Your task to perform on an android device: turn on location history Image 0: 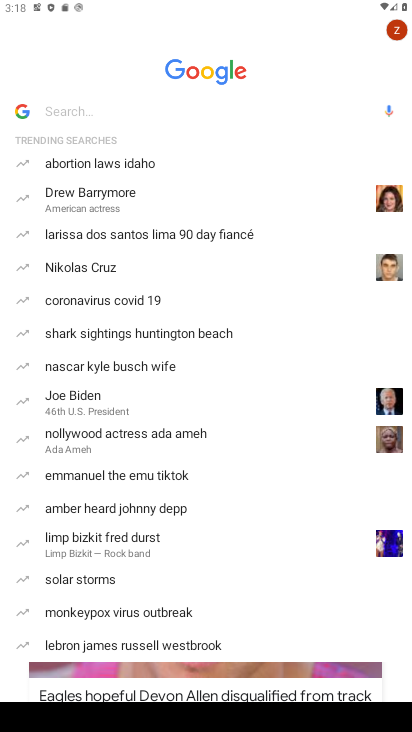
Step 0: press back button
Your task to perform on an android device: turn on location history Image 1: 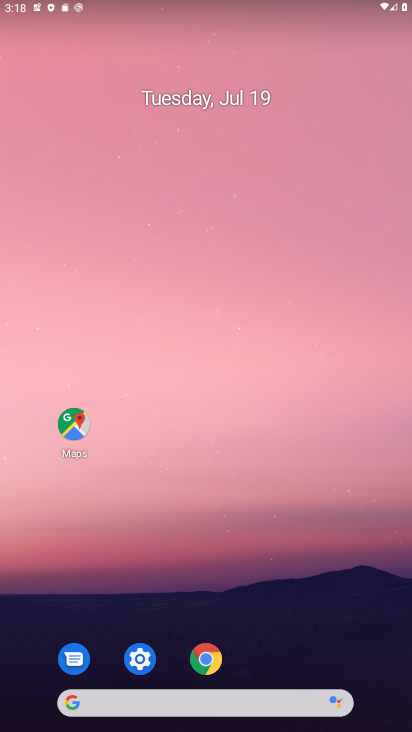
Step 1: drag from (216, 585) to (116, 148)
Your task to perform on an android device: turn on location history Image 2: 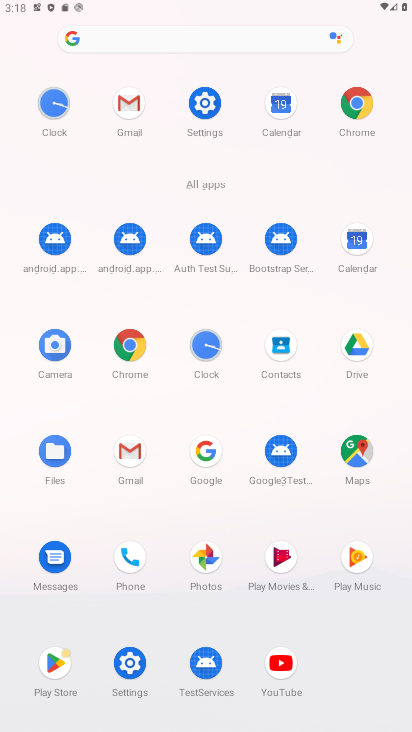
Step 2: click (206, 104)
Your task to perform on an android device: turn on location history Image 3: 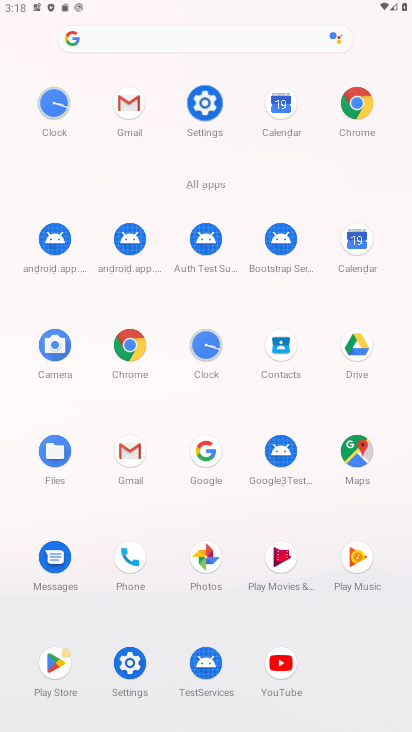
Step 3: click (212, 100)
Your task to perform on an android device: turn on location history Image 4: 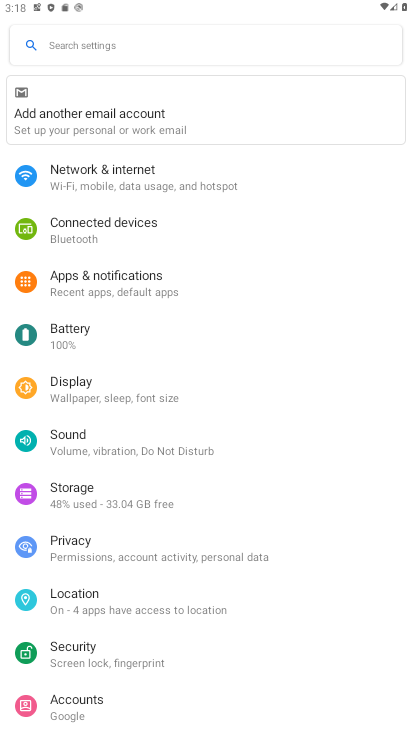
Step 4: click (67, 597)
Your task to perform on an android device: turn on location history Image 5: 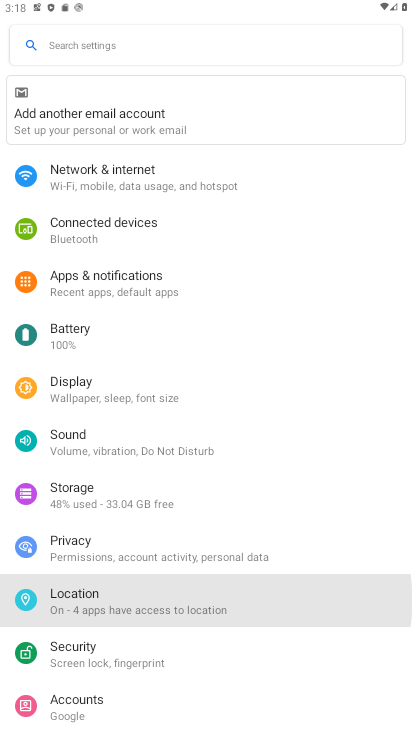
Step 5: click (67, 597)
Your task to perform on an android device: turn on location history Image 6: 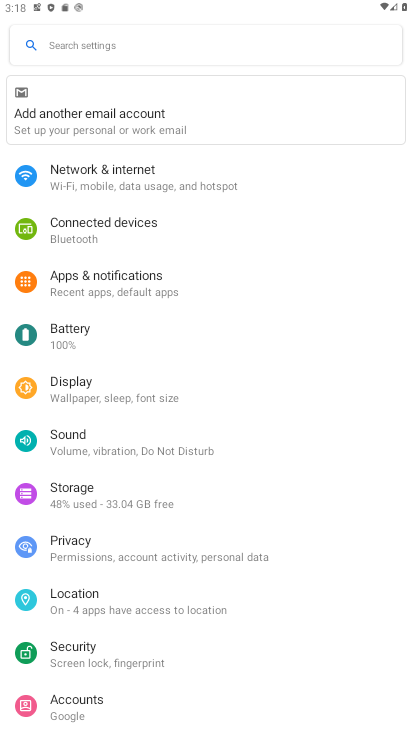
Step 6: click (68, 595)
Your task to perform on an android device: turn on location history Image 7: 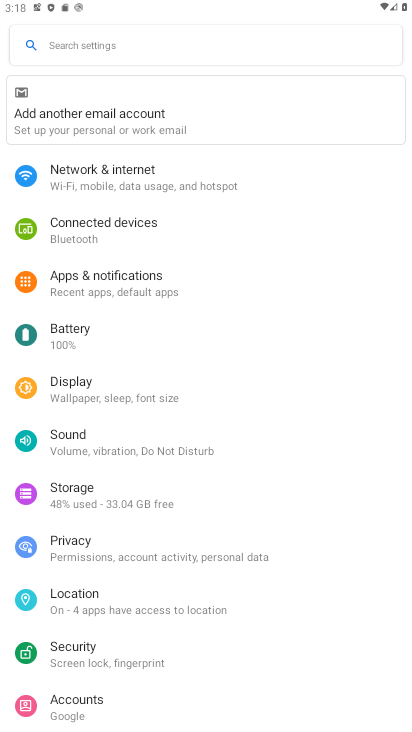
Step 7: click (69, 595)
Your task to perform on an android device: turn on location history Image 8: 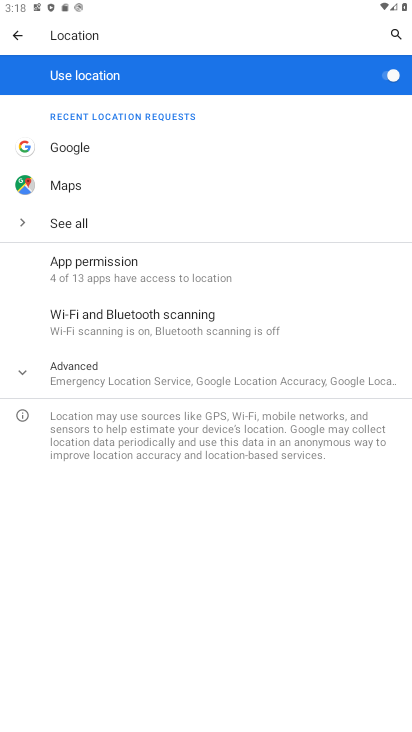
Step 8: click (72, 382)
Your task to perform on an android device: turn on location history Image 9: 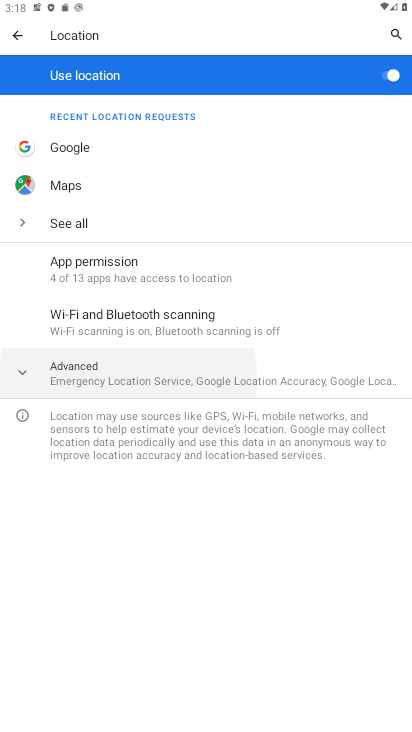
Step 9: click (72, 382)
Your task to perform on an android device: turn on location history Image 10: 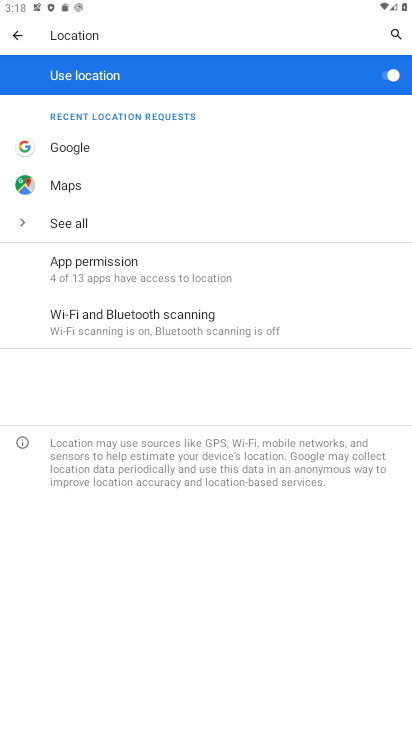
Step 10: click (72, 382)
Your task to perform on an android device: turn on location history Image 11: 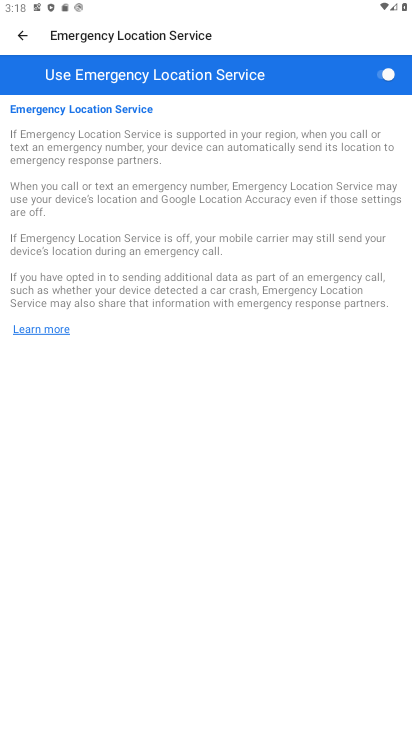
Step 11: click (33, 37)
Your task to perform on an android device: turn on location history Image 12: 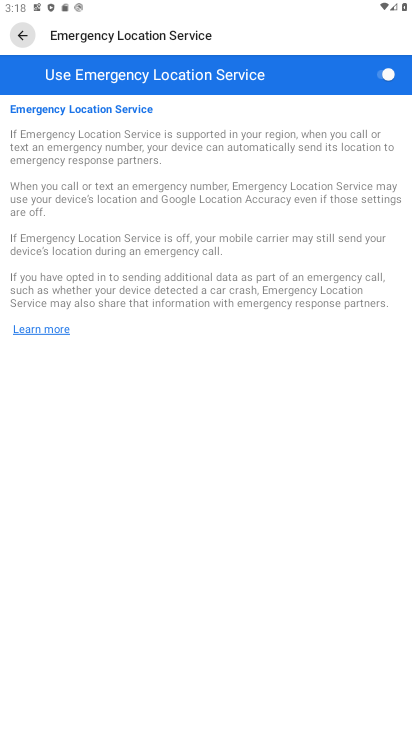
Step 12: click (32, 37)
Your task to perform on an android device: turn on location history Image 13: 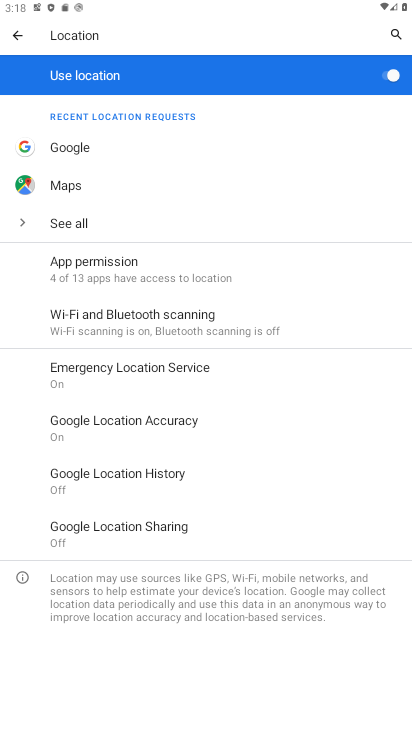
Step 13: click (130, 419)
Your task to perform on an android device: turn on location history Image 14: 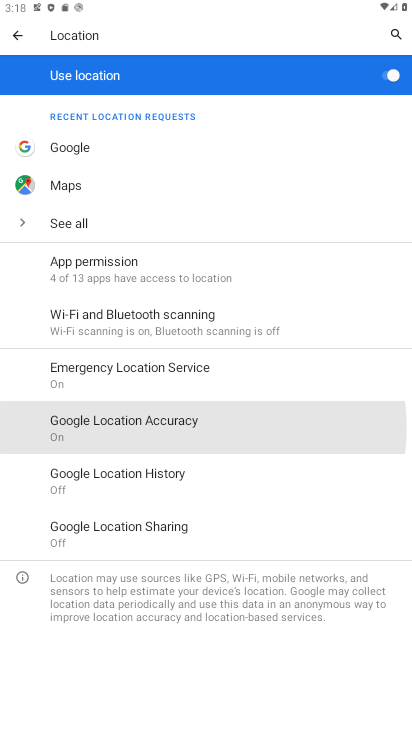
Step 14: click (116, 419)
Your task to perform on an android device: turn on location history Image 15: 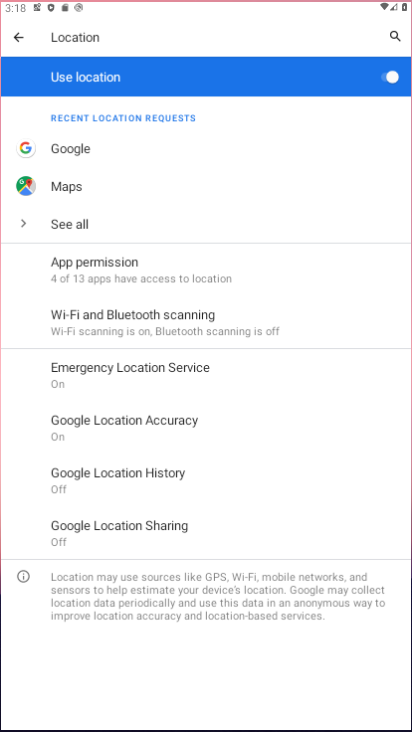
Step 15: click (124, 414)
Your task to perform on an android device: turn on location history Image 16: 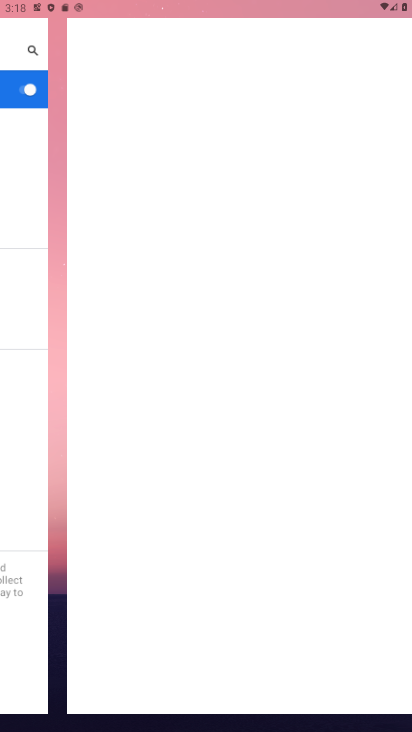
Step 16: click (129, 408)
Your task to perform on an android device: turn on location history Image 17: 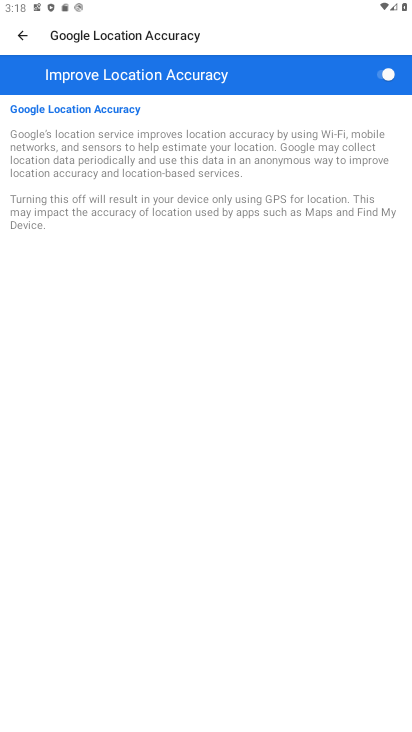
Step 17: task complete